Your task to perform on an android device: turn on bluetooth scan Image 0: 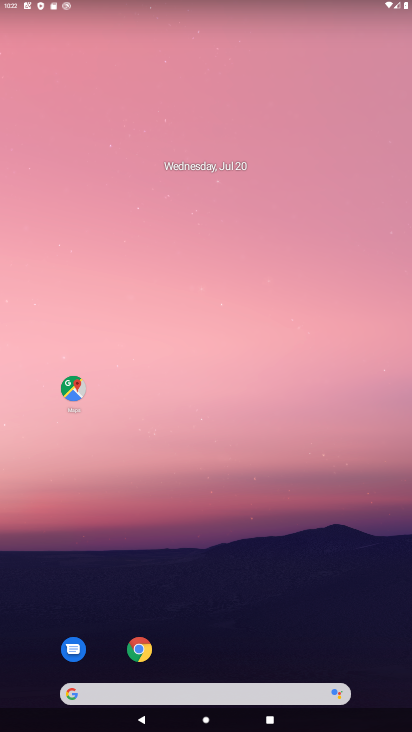
Step 0: drag from (314, 641) to (243, 115)
Your task to perform on an android device: turn on bluetooth scan Image 1: 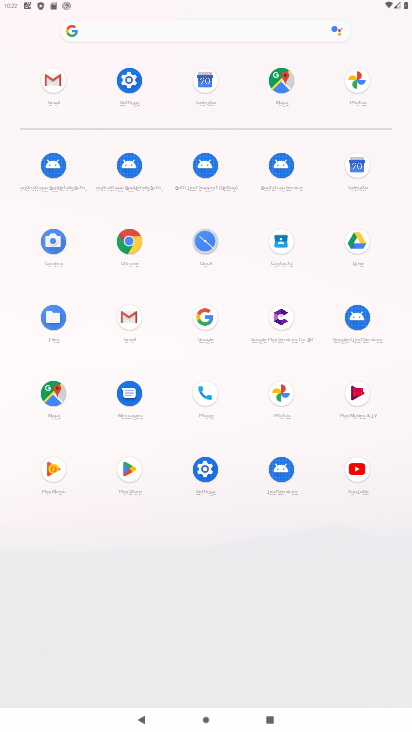
Step 1: click (129, 106)
Your task to perform on an android device: turn on bluetooth scan Image 2: 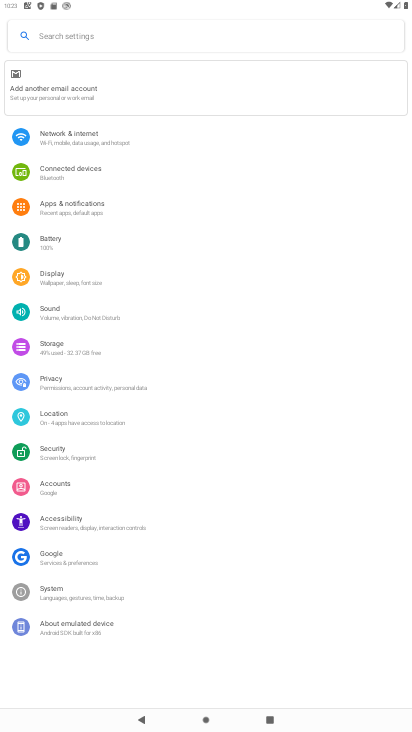
Step 2: click (88, 421)
Your task to perform on an android device: turn on bluetooth scan Image 3: 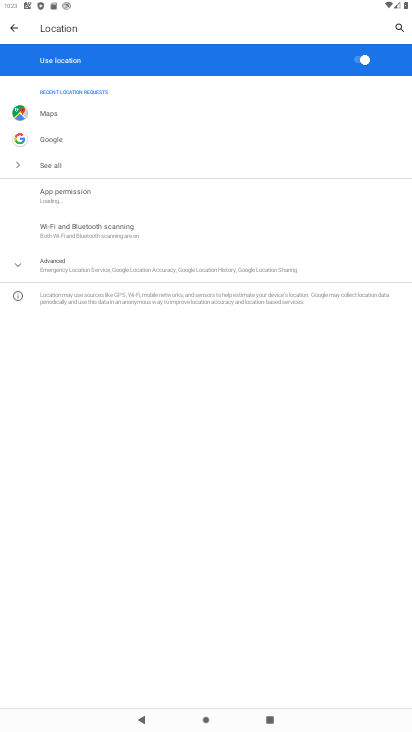
Step 3: click (129, 239)
Your task to perform on an android device: turn on bluetooth scan Image 4: 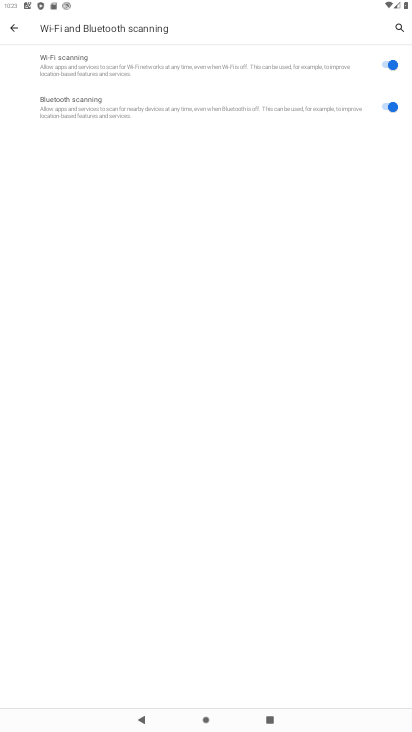
Step 4: task complete